Your task to perform on an android device: Go to sound settings Image 0: 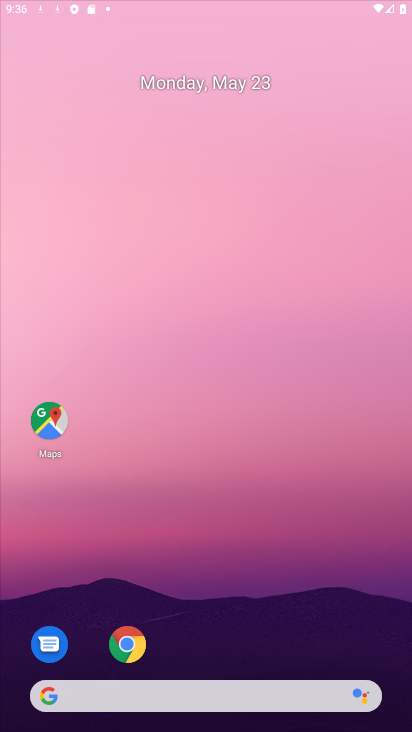
Step 0: press home button
Your task to perform on an android device: Go to sound settings Image 1: 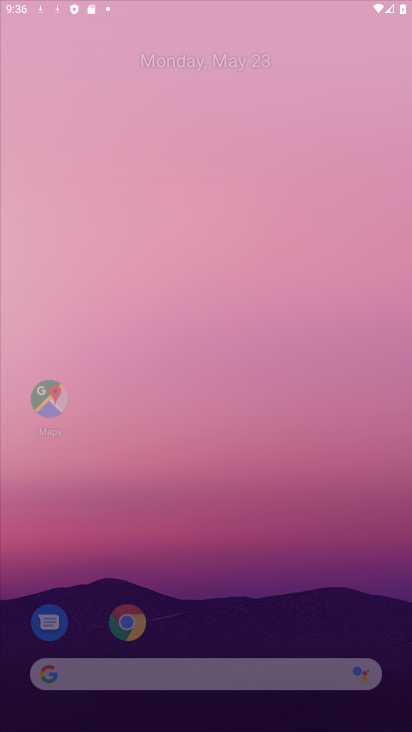
Step 1: drag from (298, 713) to (304, 40)
Your task to perform on an android device: Go to sound settings Image 2: 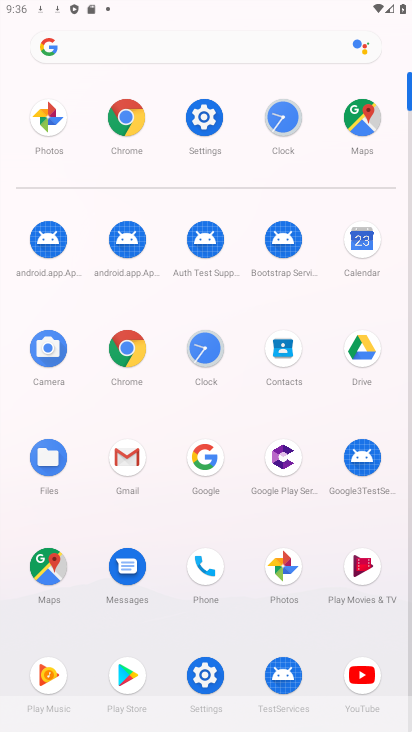
Step 2: click (204, 121)
Your task to perform on an android device: Go to sound settings Image 3: 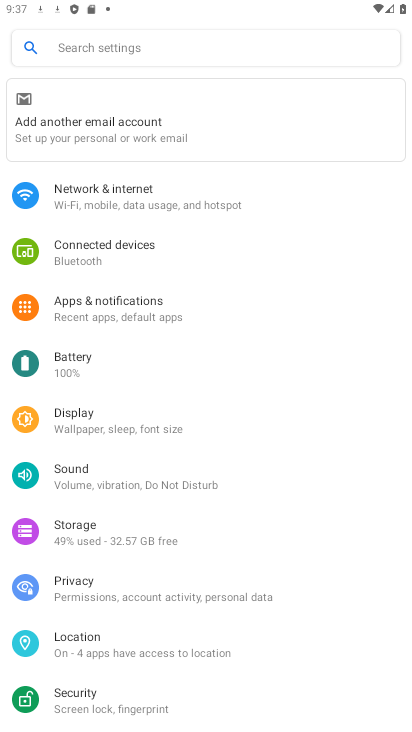
Step 3: drag from (179, 447) to (195, 496)
Your task to perform on an android device: Go to sound settings Image 4: 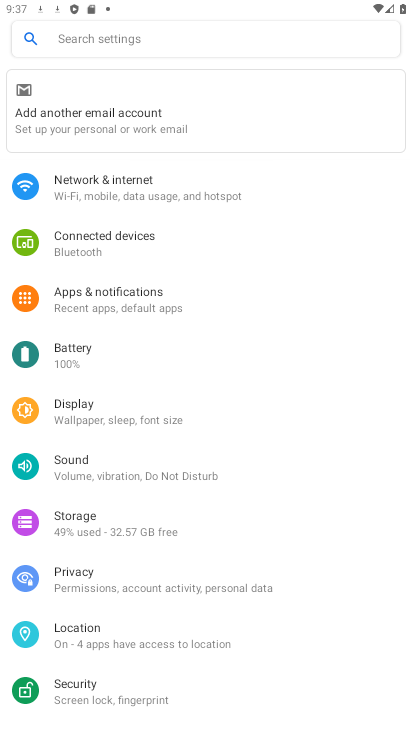
Step 4: click (116, 48)
Your task to perform on an android device: Go to sound settings Image 5: 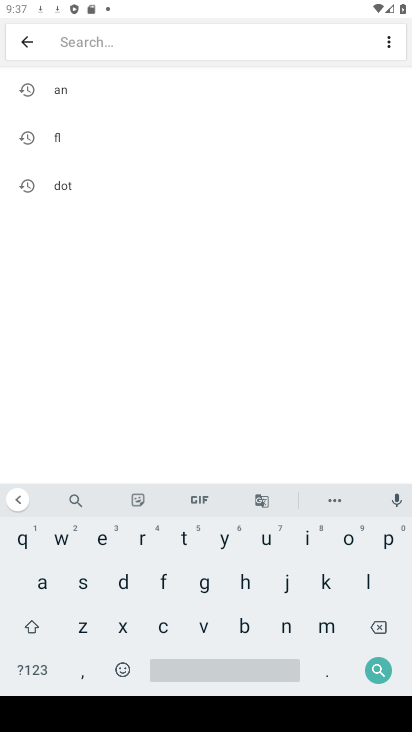
Step 5: click (76, 581)
Your task to perform on an android device: Go to sound settings Image 6: 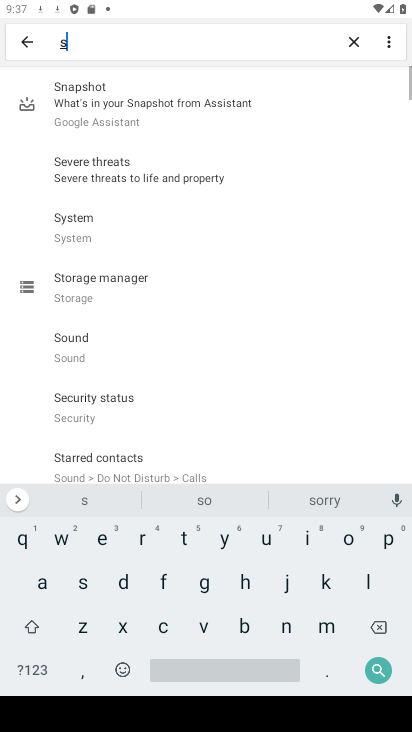
Step 6: click (350, 538)
Your task to perform on an android device: Go to sound settings Image 7: 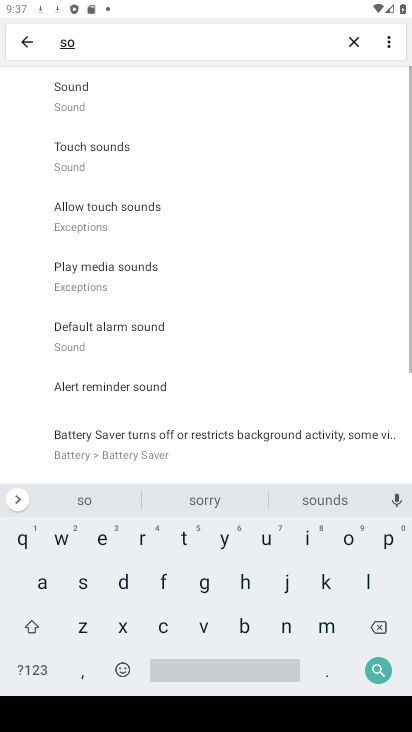
Step 7: click (113, 98)
Your task to perform on an android device: Go to sound settings Image 8: 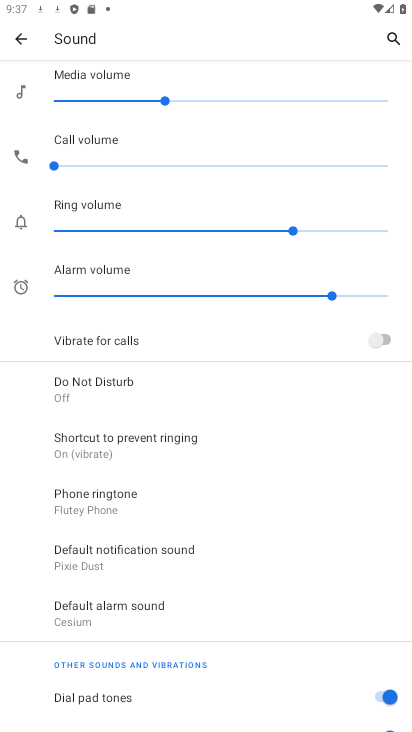
Step 8: task complete